Your task to perform on an android device: Open battery settings Image 0: 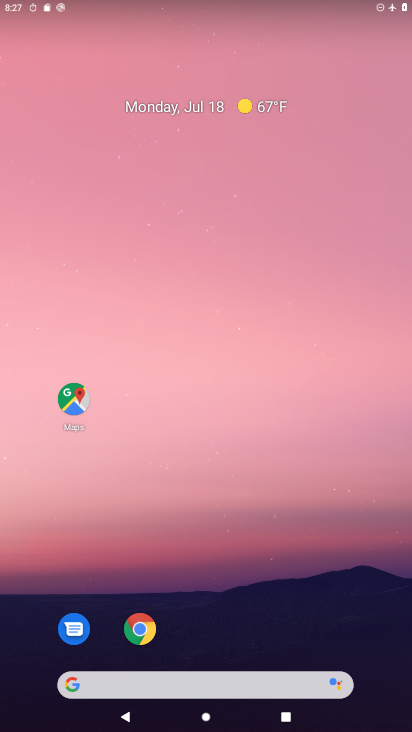
Step 0: drag from (223, 649) to (165, 170)
Your task to perform on an android device: Open battery settings Image 1: 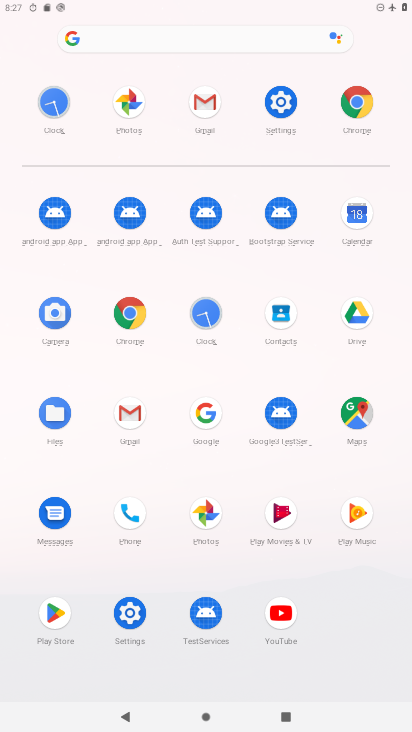
Step 1: click (135, 609)
Your task to perform on an android device: Open battery settings Image 2: 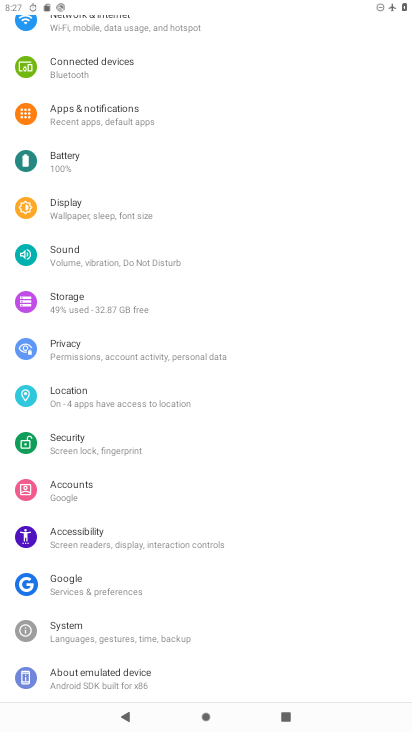
Step 2: click (88, 172)
Your task to perform on an android device: Open battery settings Image 3: 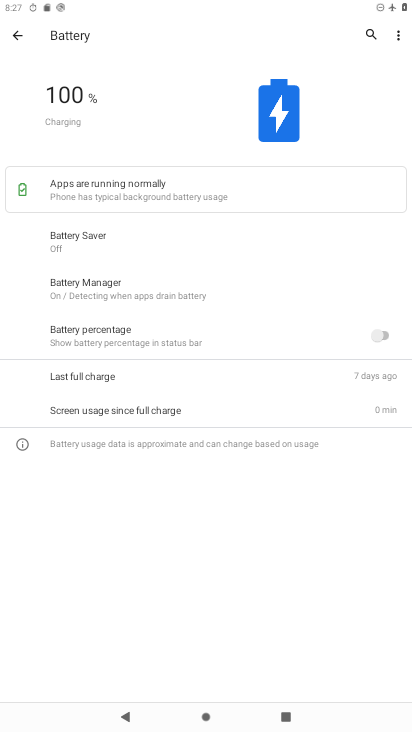
Step 3: task complete